Your task to perform on an android device: check battery use Image 0: 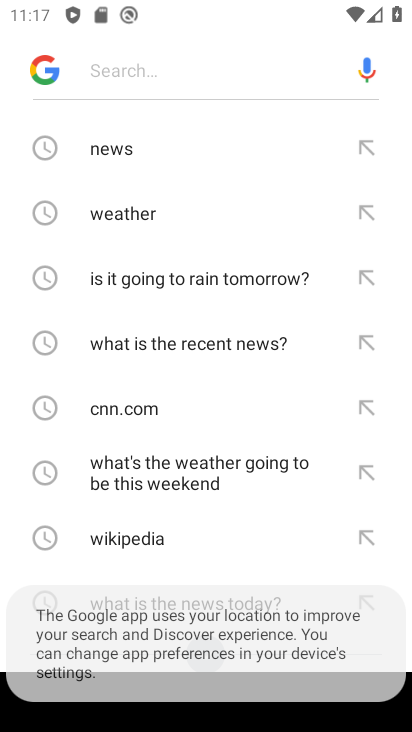
Step 0: press home button
Your task to perform on an android device: check battery use Image 1: 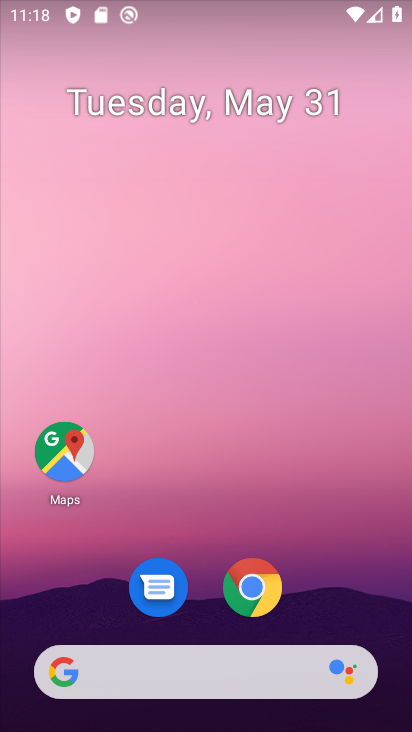
Step 1: drag from (56, 642) to (165, 95)
Your task to perform on an android device: check battery use Image 2: 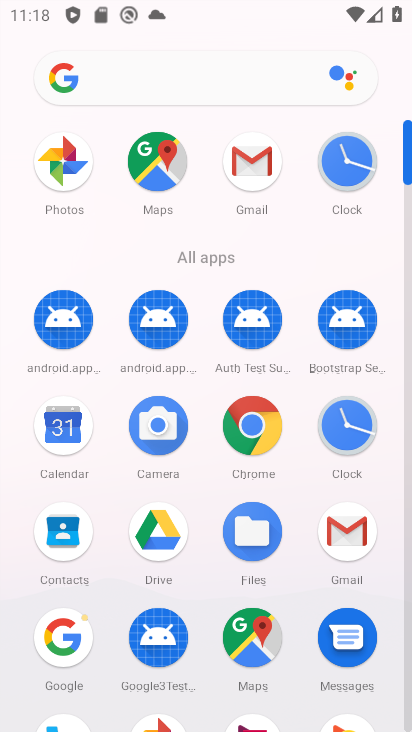
Step 2: drag from (135, 557) to (204, 246)
Your task to perform on an android device: check battery use Image 3: 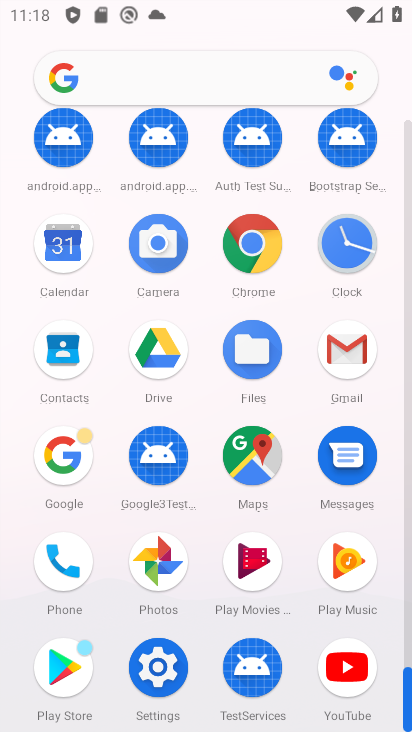
Step 3: click (165, 682)
Your task to perform on an android device: check battery use Image 4: 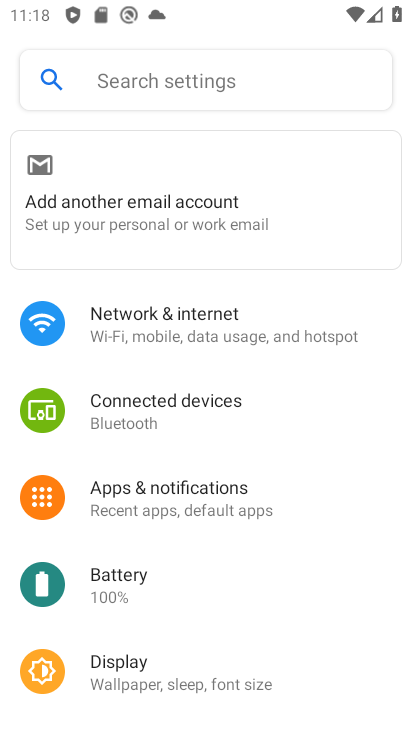
Step 4: click (223, 617)
Your task to perform on an android device: check battery use Image 5: 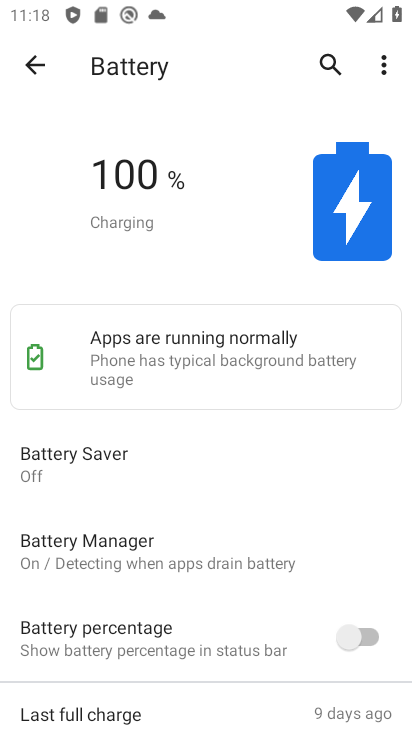
Step 5: click (376, 67)
Your task to perform on an android device: check battery use Image 6: 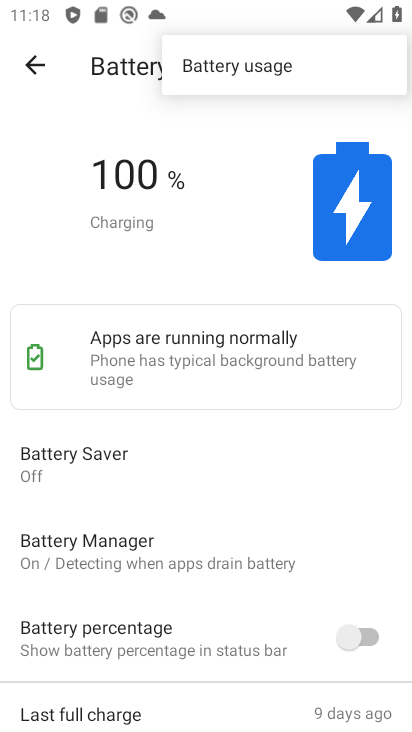
Step 6: click (376, 67)
Your task to perform on an android device: check battery use Image 7: 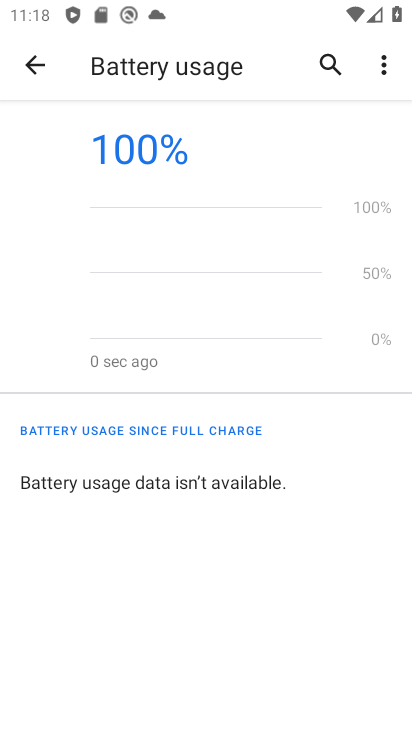
Step 7: task complete